Your task to perform on an android device: Open Google Chrome Image 0: 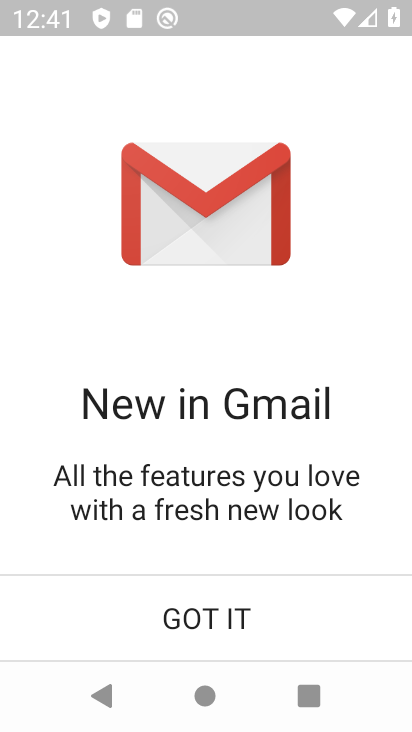
Step 0: press home button
Your task to perform on an android device: Open Google Chrome Image 1: 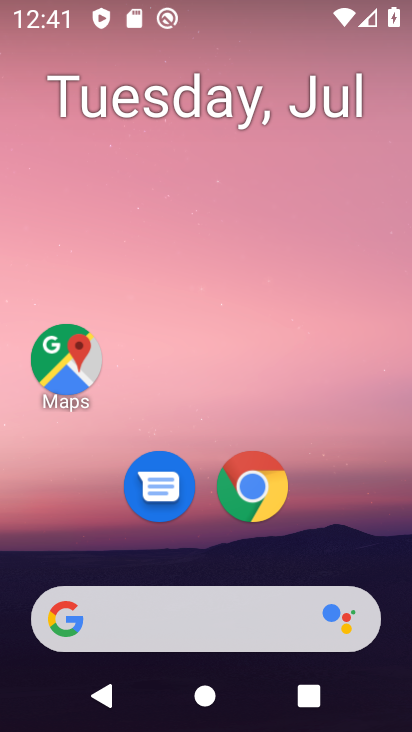
Step 1: drag from (355, 544) to (370, 104)
Your task to perform on an android device: Open Google Chrome Image 2: 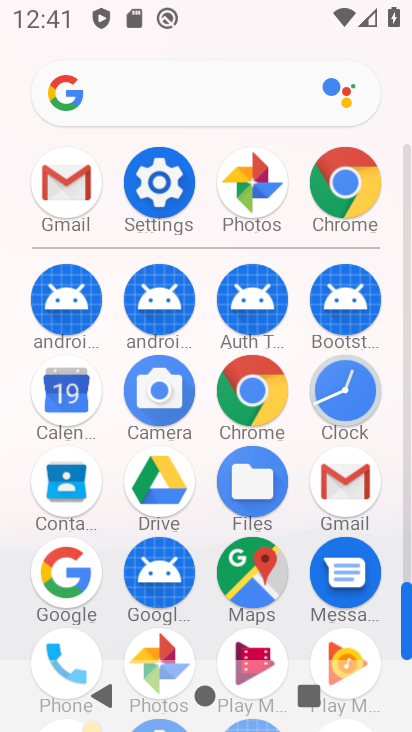
Step 2: click (264, 394)
Your task to perform on an android device: Open Google Chrome Image 3: 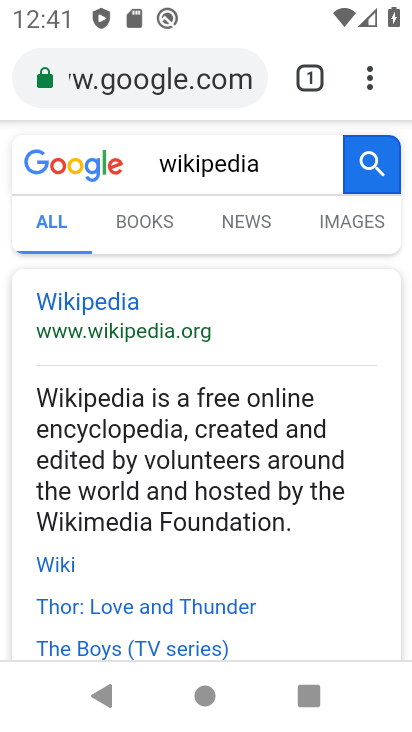
Step 3: task complete